Your task to perform on an android device: turn off location Image 0: 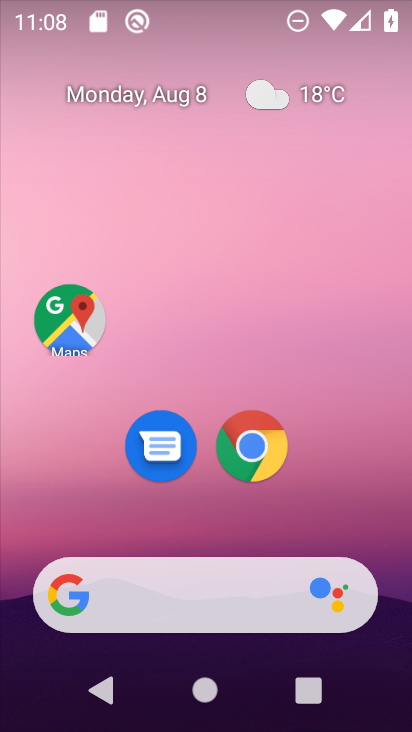
Step 0: drag from (395, 631) to (377, 121)
Your task to perform on an android device: turn off location Image 1: 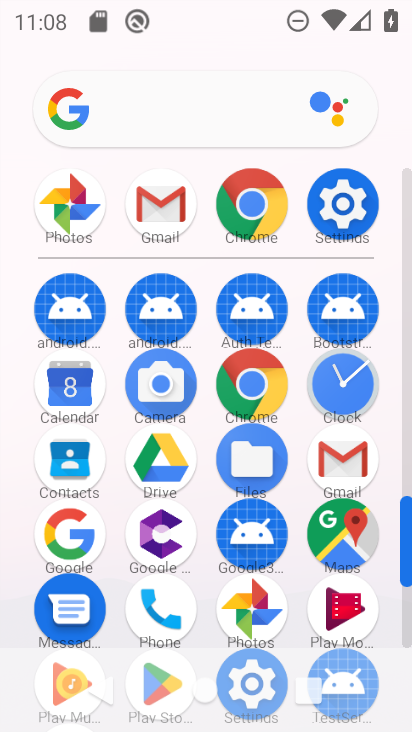
Step 1: click (406, 638)
Your task to perform on an android device: turn off location Image 2: 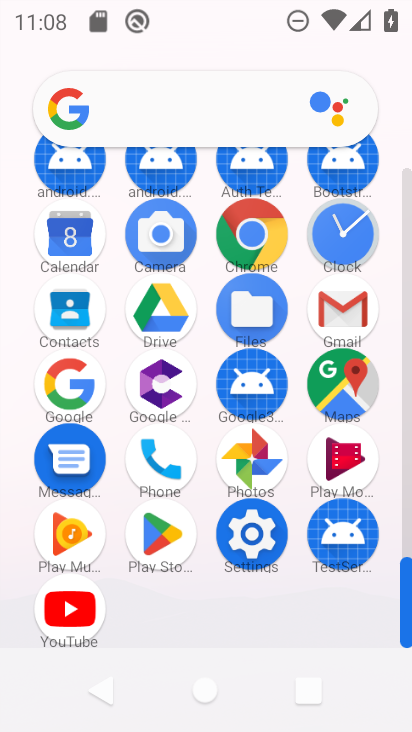
Step 2: click (251, 533)
Your task to perform on an android device: turn off location Image 3: 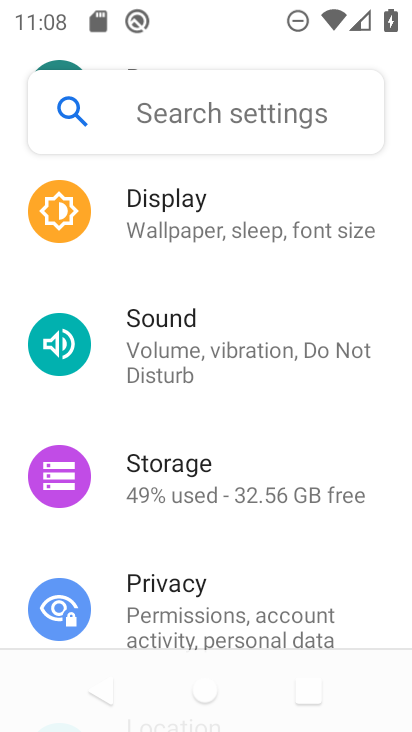
Step 3: drag from (352, 559) to (351, 279)
Your task to perform on an android device: turn off location Image 4: 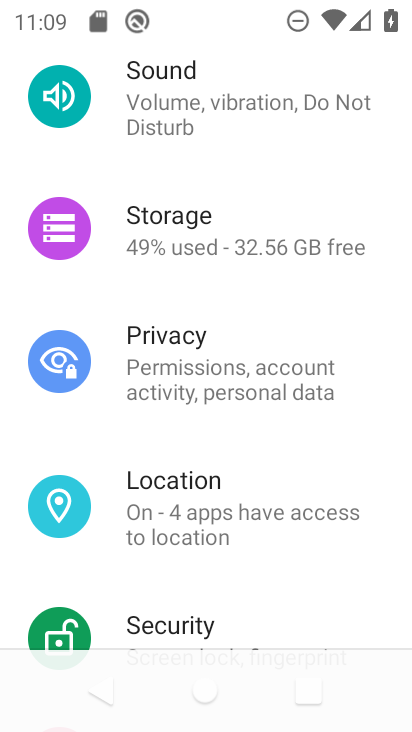
Step 4: click (199, 515)
Your task to perform on an android device: turn off location Image 5: 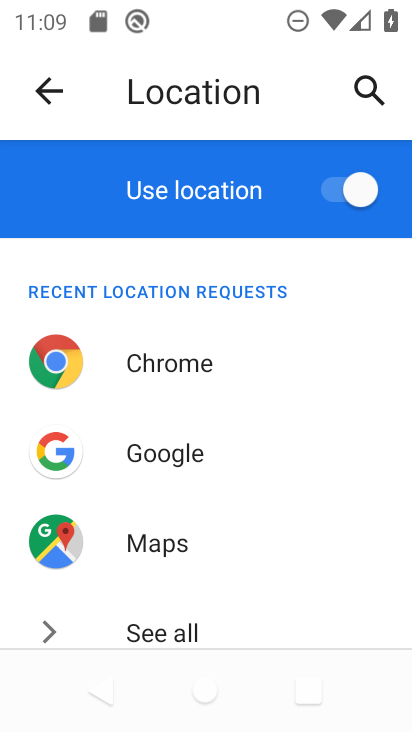
Step 5: click (335, 194)
Your task to perform on an android device: turn off location Image 6: 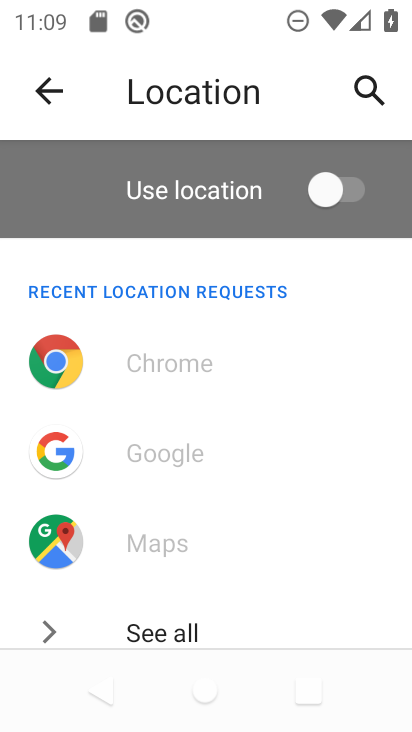
Step 6: task complete